Your task to perform on an android device: turn off airplane mode Image 0: 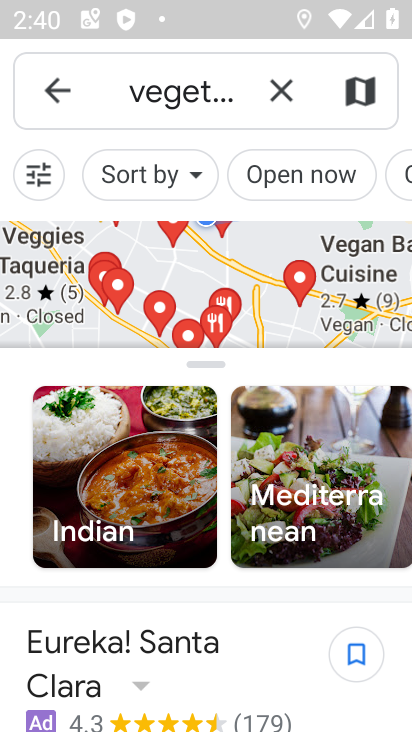
Step 0: press home button
Your task to perform on an android device: turn off airplane mode Image 1: 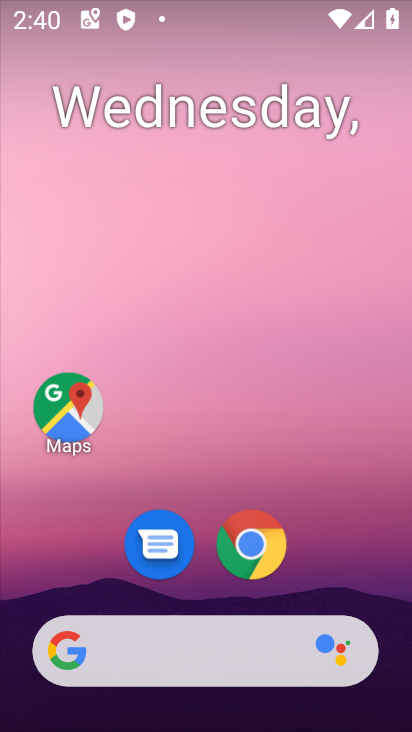
Step 1: drag from (362, 552) to (384, 150)
Your task to perform on an android device: turn off airplane mode Image 2: 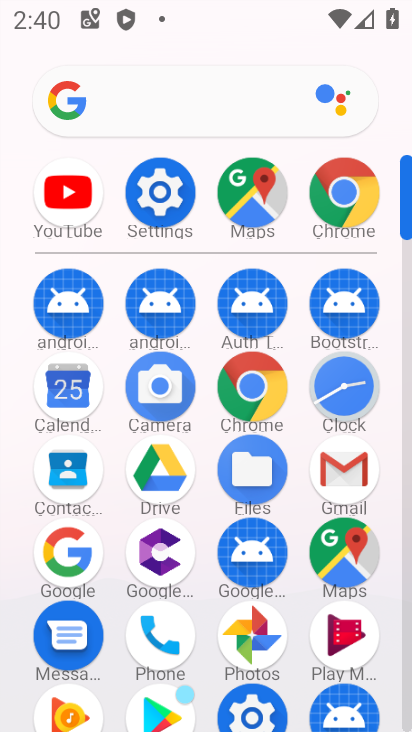
Step 2: click (165, 193)
Your task to perform on an android device: turn off airplane mode Image 3: 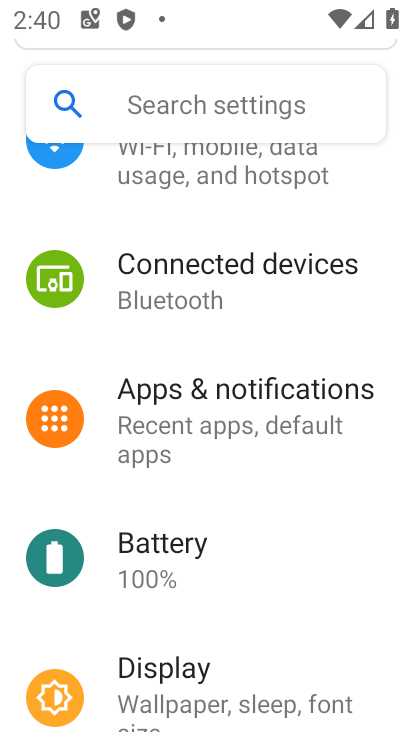
Step 3: drag from (271, 386) to (267, 672)
Your task to perform on an android device: turn off airplane mode Image 4: 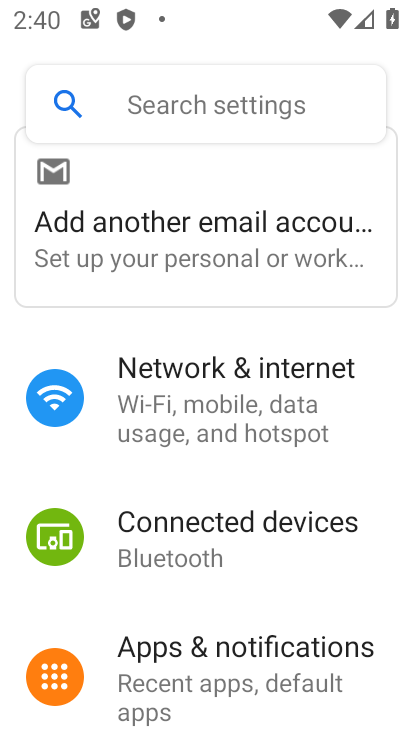
Step 4: click (273, 383)
Your task to perform on an android device: turn off airplane mode Image 5: 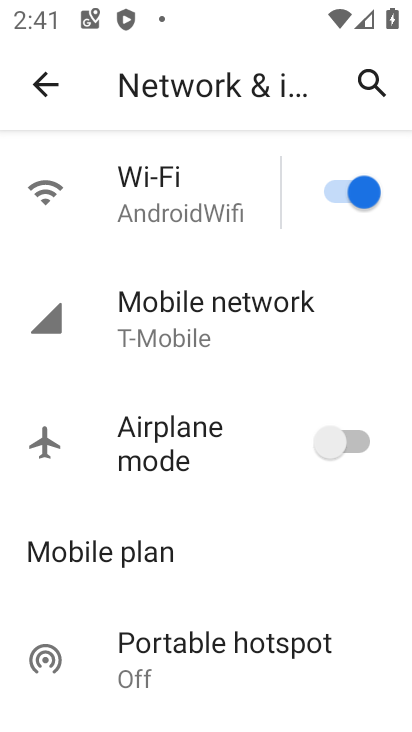
Step 5: task complete